Your task to perform on an android device: turn off location history Image 0: 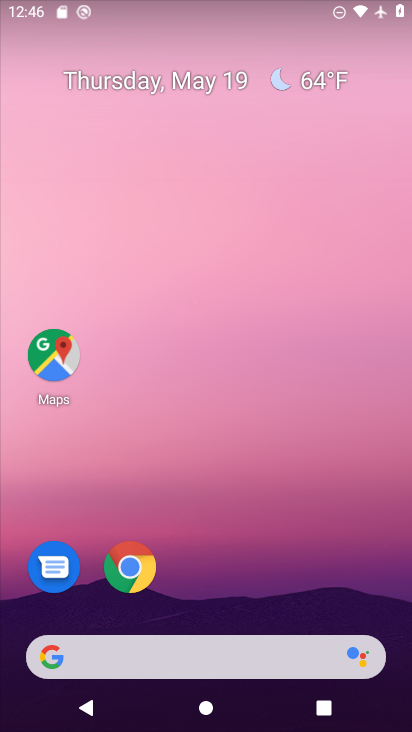
Step 0: drag from (256, 547) to (257, 145)
Your task to perform on an android device: turn off location history Image 1: 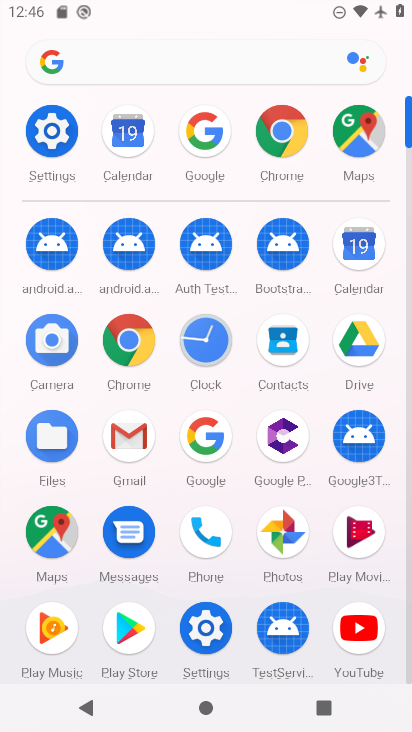
Step 1: click (44, 143)
Your task to perform on an android device: turn off location history Image 2: 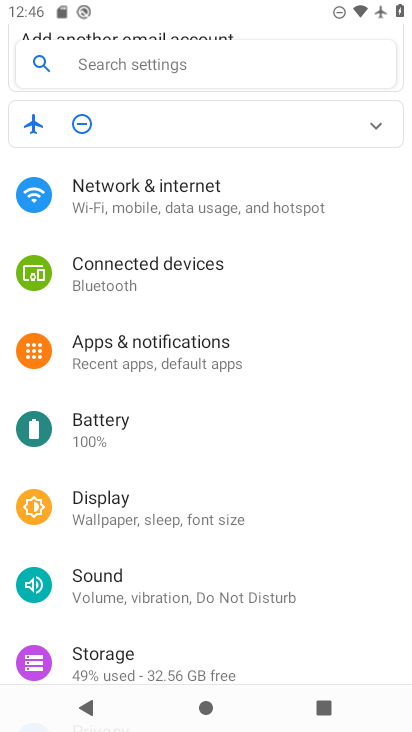
Step 2: drag from (157, 659) to (163, 313)
Your task to perform on an android device: turn off location history Image 3: 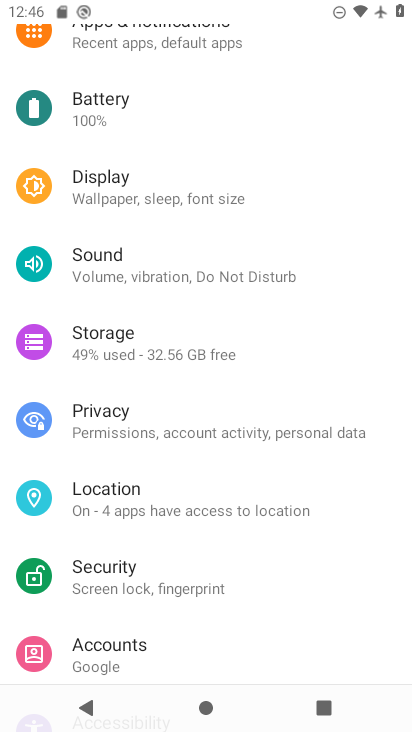
Step 3: click (173, 498)
Your task to perform on an android device: turn off location history Image 4: 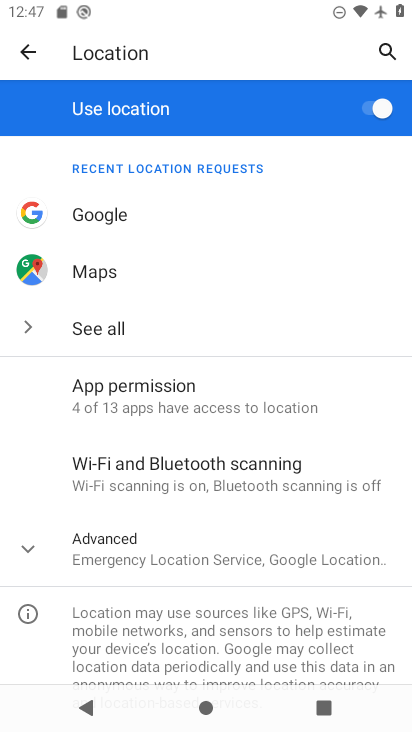
Step 4: click (29, 553)
Your task to perform on an android device: turn off location history Image 5: 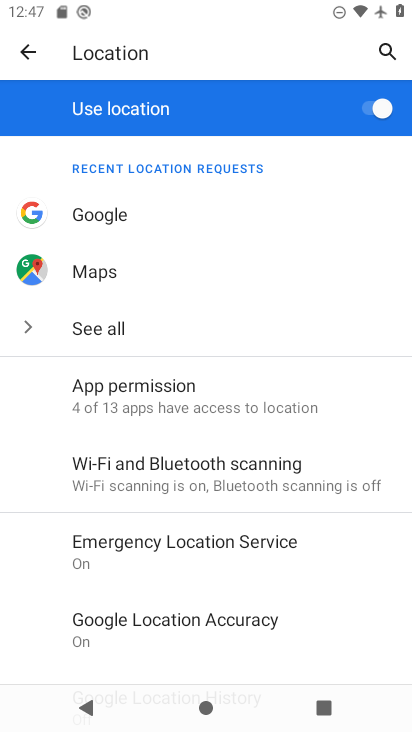
Step 5: drag from (206, 628) to (224, 379)
Your task to perform on an android device: turn off location history Image 6: 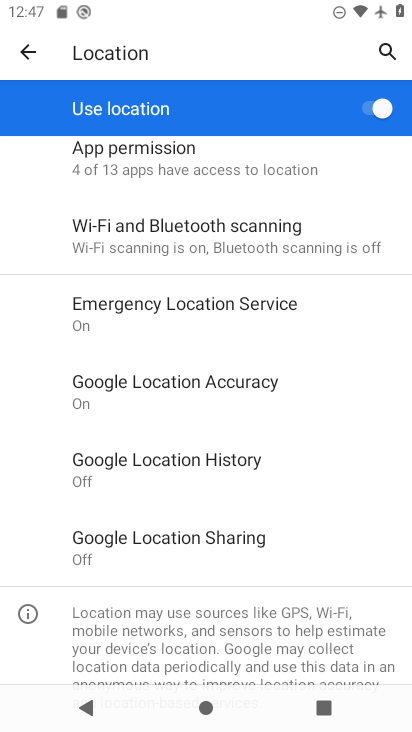
Step 6: click (238, 465)
Your task to perform on an android device: turn off location history Image 7: 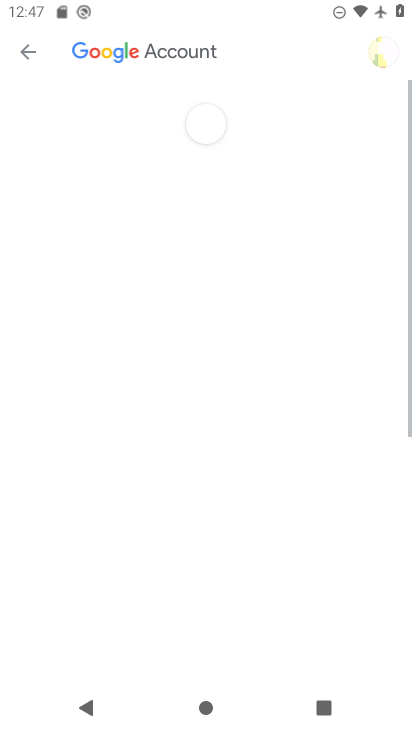
Step 7: task complete